Your task to perform on an android device: read, delete, or share a saved page in the chrome app Image 0: 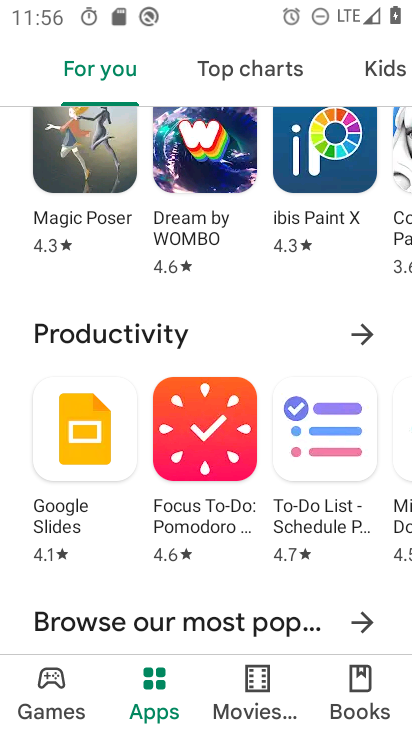
Step 0: press home button
Your task to perform on an android device: read, delete, or share a saved page in the chrome app Image 1: 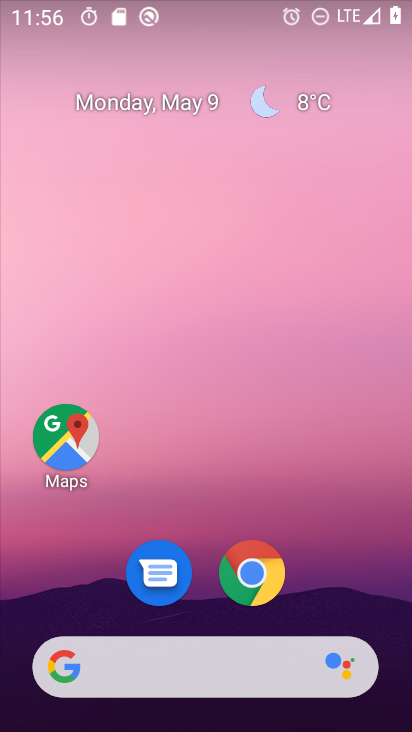
Step 1: click (251, 566)
Your task to perform on an android device: read, delete, or share a saved page in the chrome app Image 2: 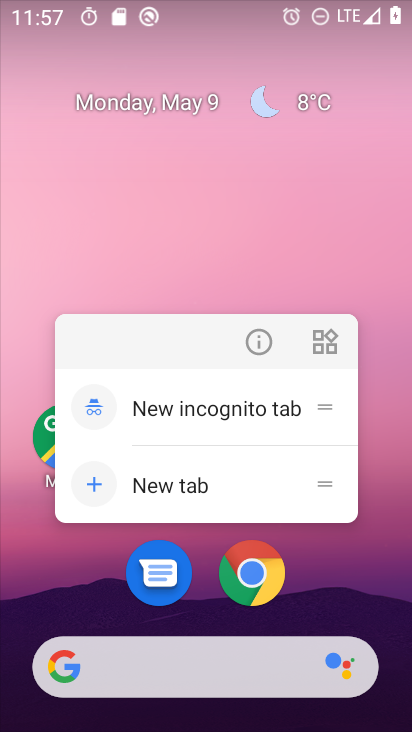
Step 2: click (255, 581)
Your task to perform on an android device: read, delete, or share a saved page in the chrome app Image 3: 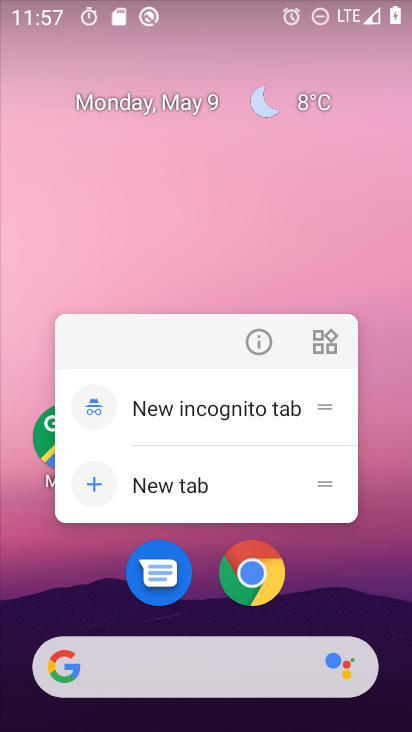
Step 3: click (258, 575)
Your task to perform on an android device: read, delete, or share a saved page in the chrome app Image 4: 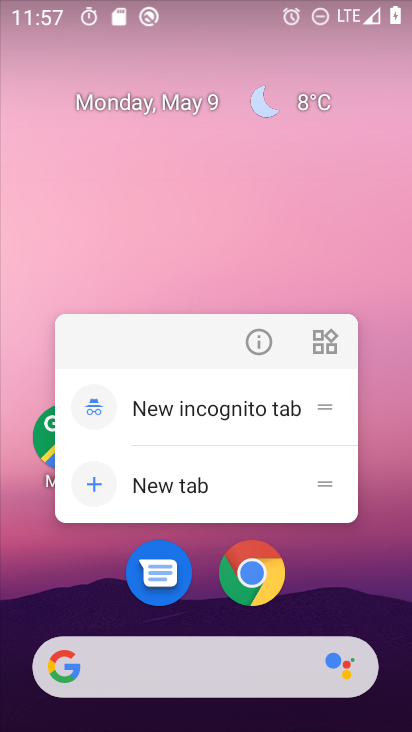
Step 4: click (258, 575)
Your task to perform on an android device: read, delete, or share a saved page in the chrome app Image 5: 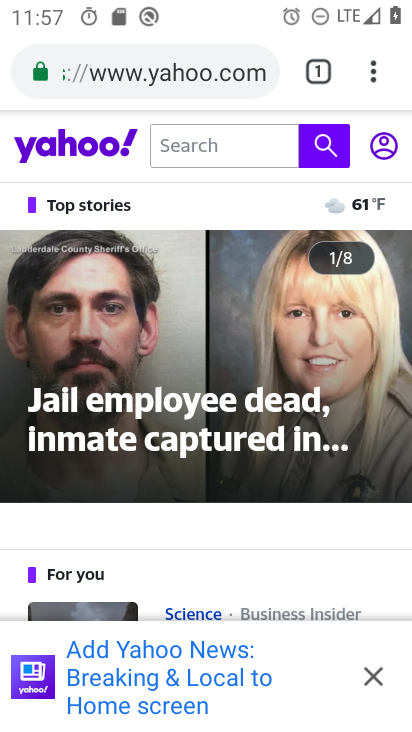
Step 5: task complete